Your task to perform on an android device: move an email to a new category in the gmail app Image 0: 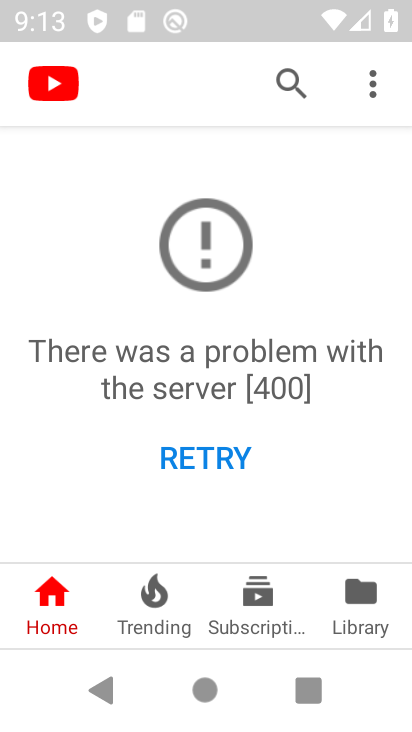
Step 0: press home button
Your task to perform on an android device: move an email to a new category in the gmail app Image 1: 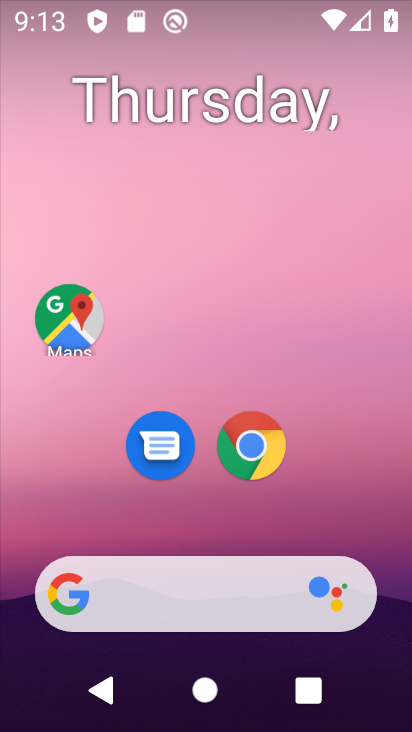
Step 1: drag from (87, 480) to (202, 86)
Your task to perform on an android device: move an email to a new category in the gmail app Image 2: 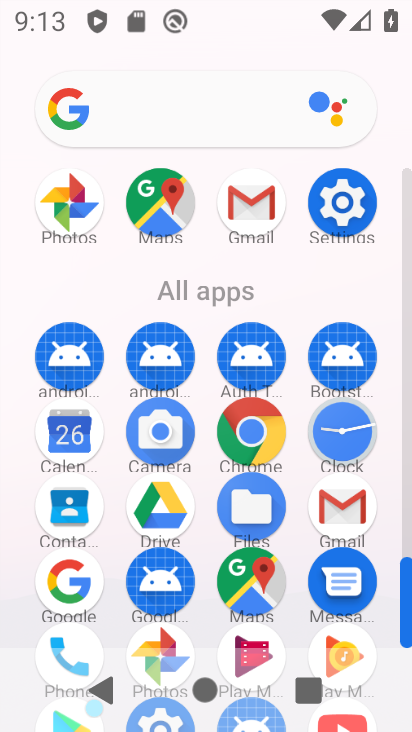
Step 2: drag from (196, 573) to (265, 306)
Your task to perform on an android device: move an email to a new category in the gmail app Image 3: 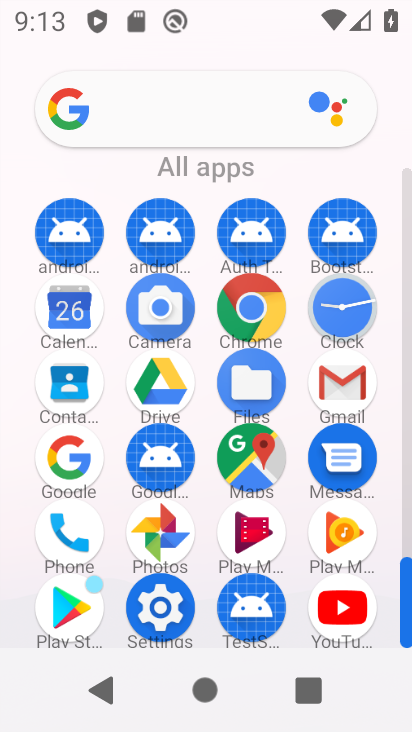
Step 3: click (308, 391)
Your task to perform on an android device: move an email to a new category in the gmail app Image 4: 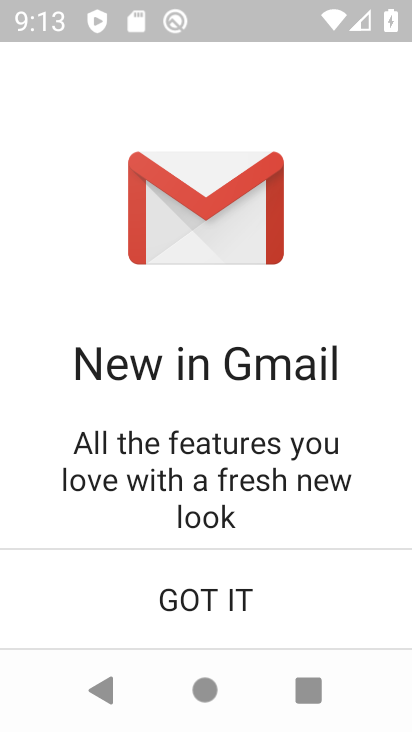
Step 4: click (215, 588)
Your task to perform on an android device: move an email to a new category in the gmail app Image 5: 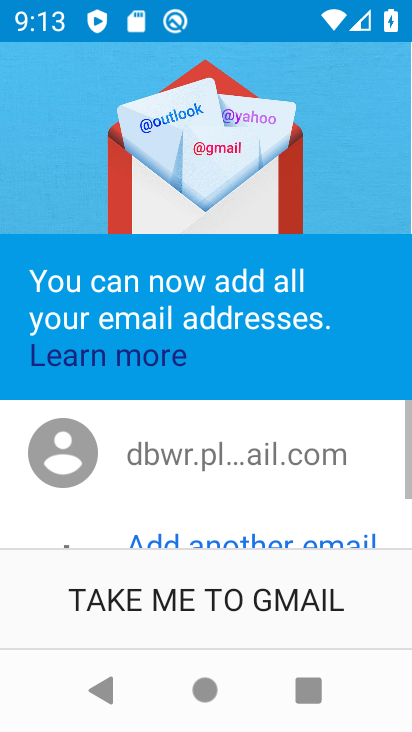
Step 5: click (216, 588)
Your task to perform on an android device: move an email to a new category in the gmail app Image 6: 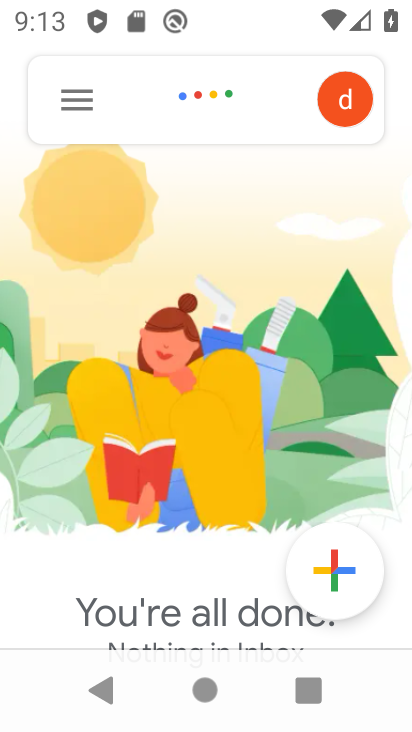
Step 6: click (69, 132)
Your task to perform on an android device: move an email to a new category in the gmail app Image 7: 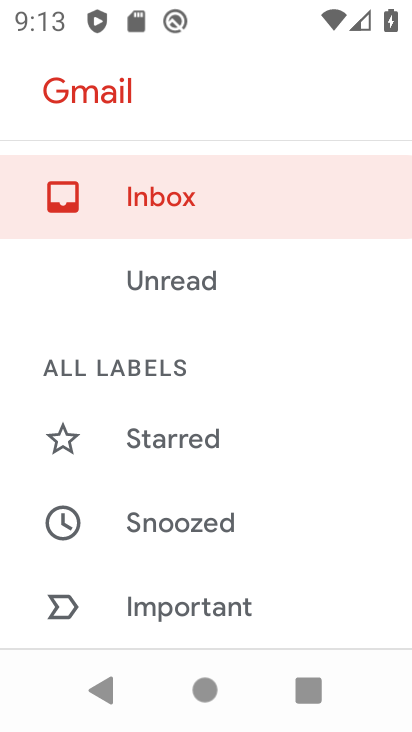
Step 7: drag from (173, 616) to (296, 234)
Your task to perform on an android device: move an email to a new category in the gmail app Image 8: 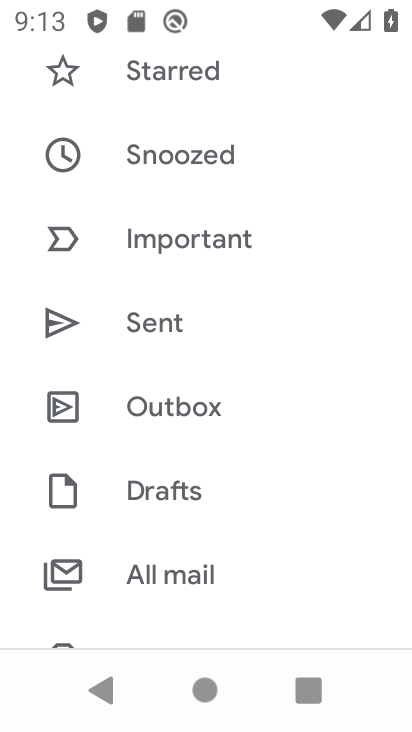
Step 8: drag from (191, 578) to (220, 446)
Your task to perform on an android device: move an email to a new category in the gmail app Image 9: 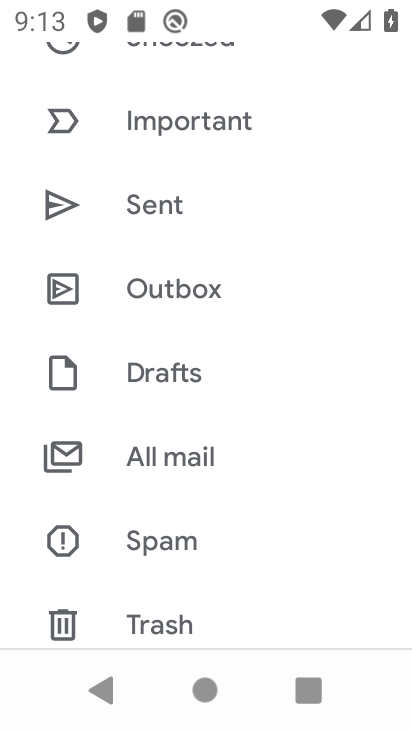
Step 9: click (202, 449)
Your task to perform on an android device: move an email to a new category in the gmail app Image 10: 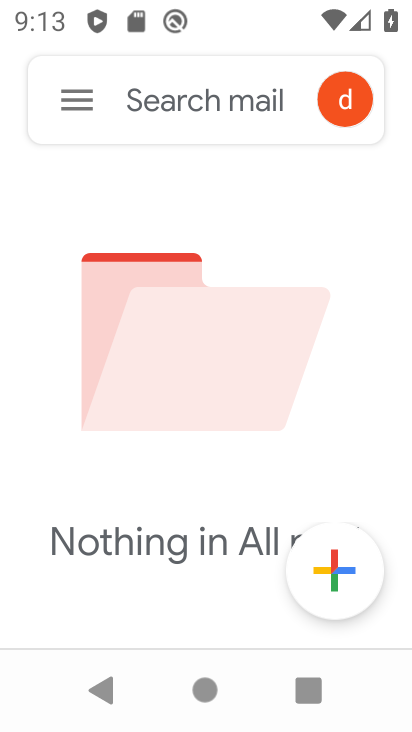
Step 10: task complete